Your task to perform on an android device: turn off airplane mode Image 0: 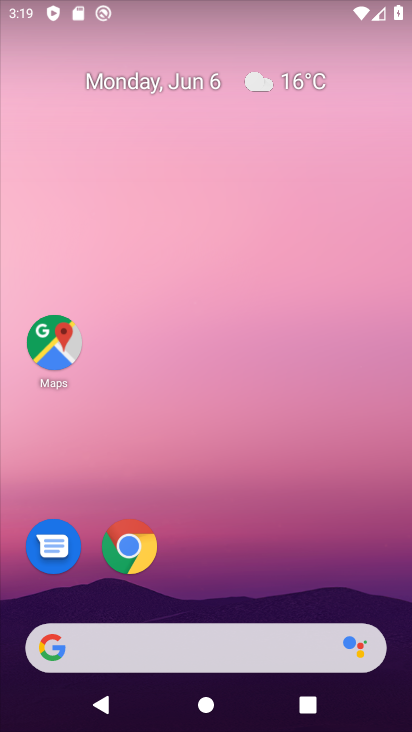
Step 0: drag from (303, 545) to (261, 0)
Your task to perform on an android device: turn off airplane mode Image 1: 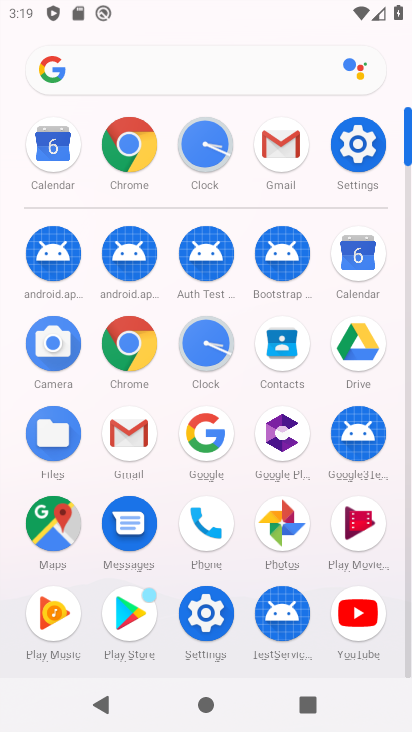
Step 1: click (361, 141)
Your task to perform on an android device: turn off airplane mode Image 2: 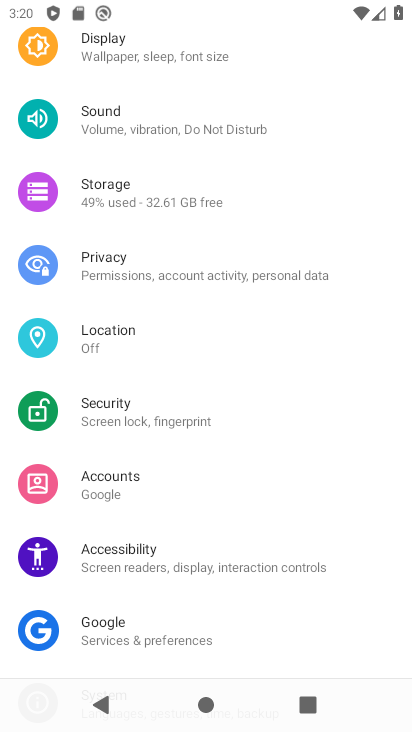
Step 2: drag from (295, 140) to (282, 651)
Your task to perform on an android device: turn off airplane mode Image 3: 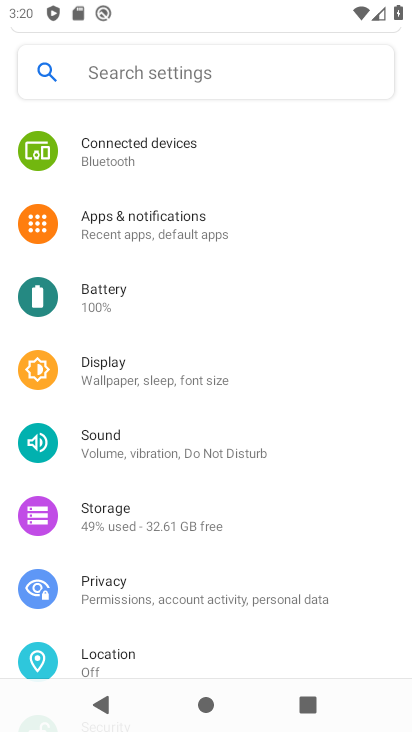
Step 3: drag from (229, 229) to (300, 709)
Your task to perform on an android device: turn off airplane mode Image 4: 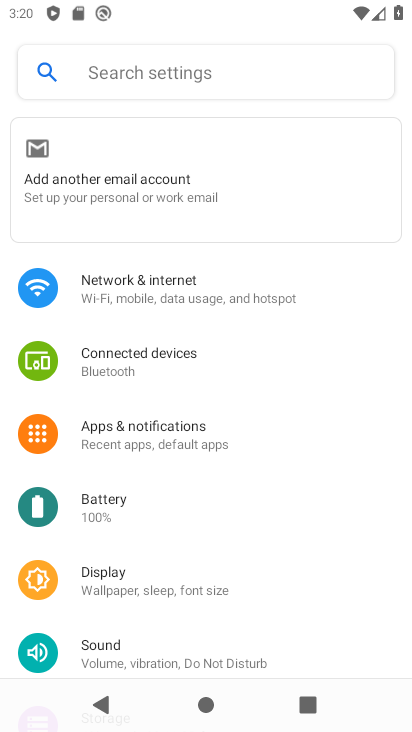
Step 4: click (175, 276)
Your task to perform on an android device: turn off airplane mode Image 5: 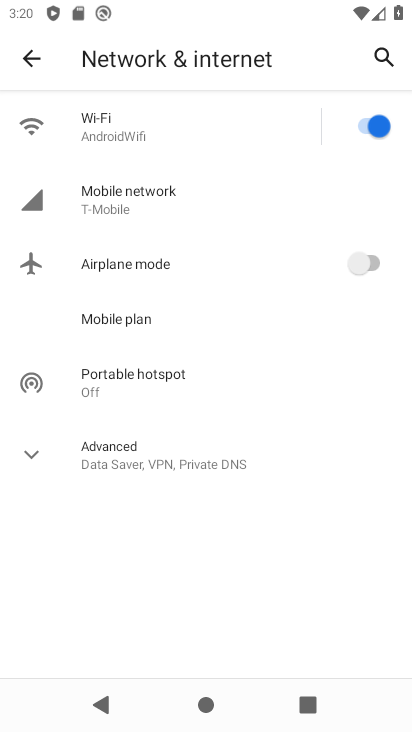
Step 5: task complete